Your task to perform on an android device: Check the weather Image 0: 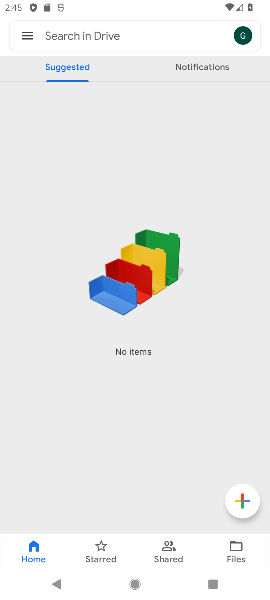
Step 0: press home button
Your task to perform on an android device: Check the weather Image 1: 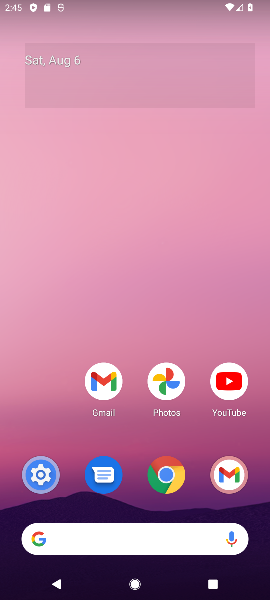
Step 1: click (55, 543)
Your task to perform on an android device: Check the weather Image 2: 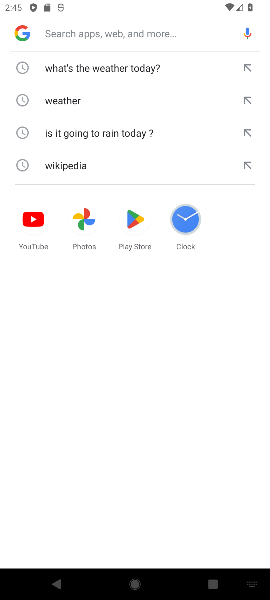
Step 2: type "Check the weather"
Your task to perform on an android device: Check the weather Image 3: 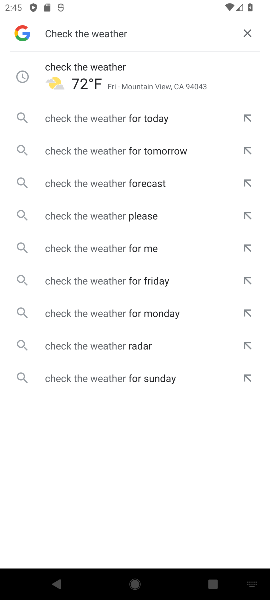
Step 3: task complete